Your task to perform on an android device: Show me recent news Image 0: 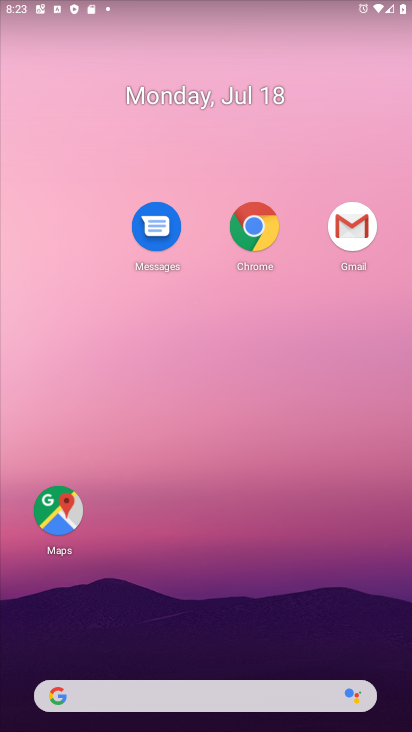
Step 0: press home button
Your task to perform on an android device: Show me recent news Image 1: 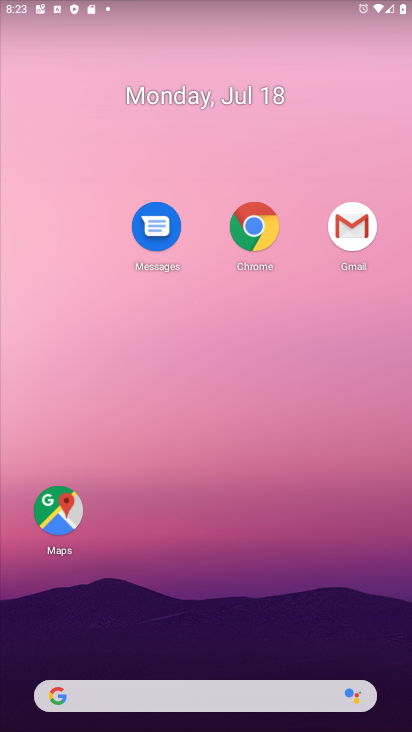
Step 1: task complete